Your task to perform on an android device: open app "Lyft - Rideshare, Bikes, Scooters & Transit" (install if not already installed) Image 0: 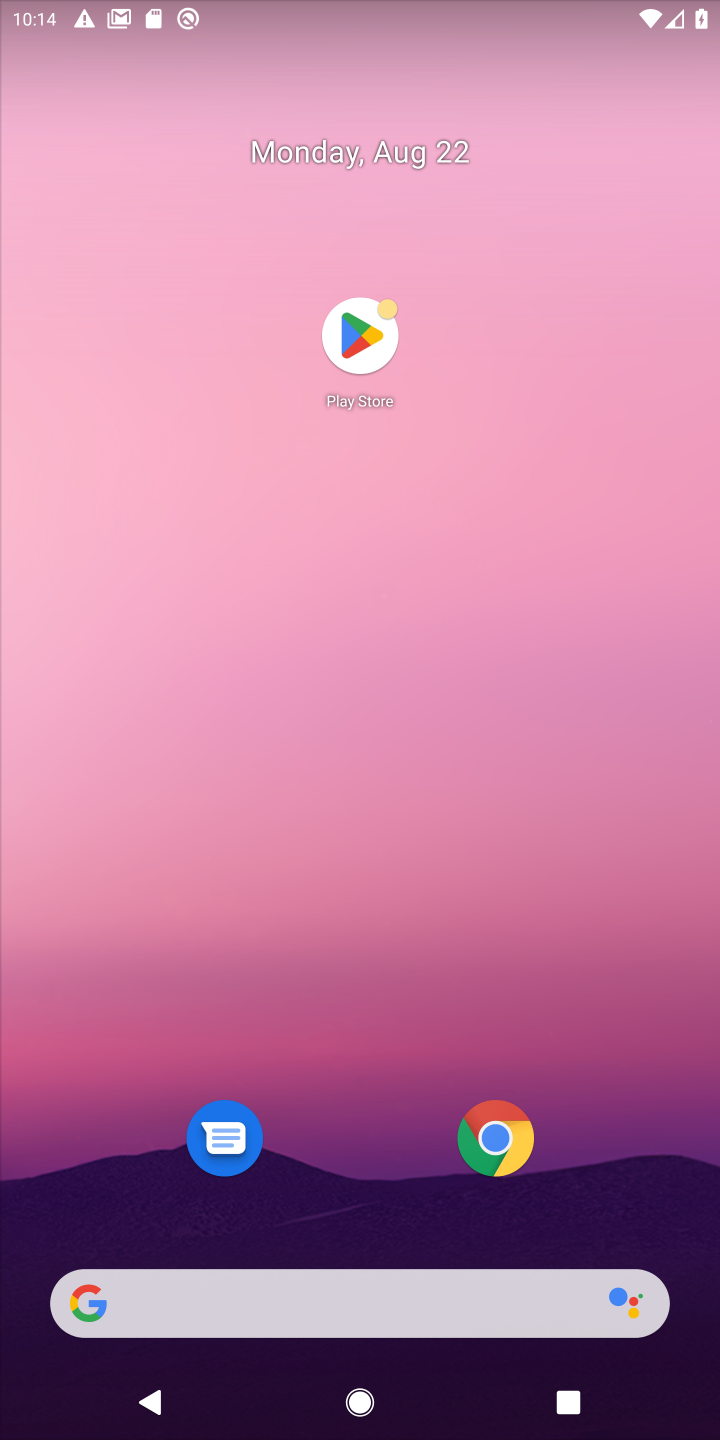
Step 0: click (360, 333)
Your task to perform on an android device: open app "Lyft - Rideshare, Bikes, Scooters & Transit" (install if not already installed) Image 1: 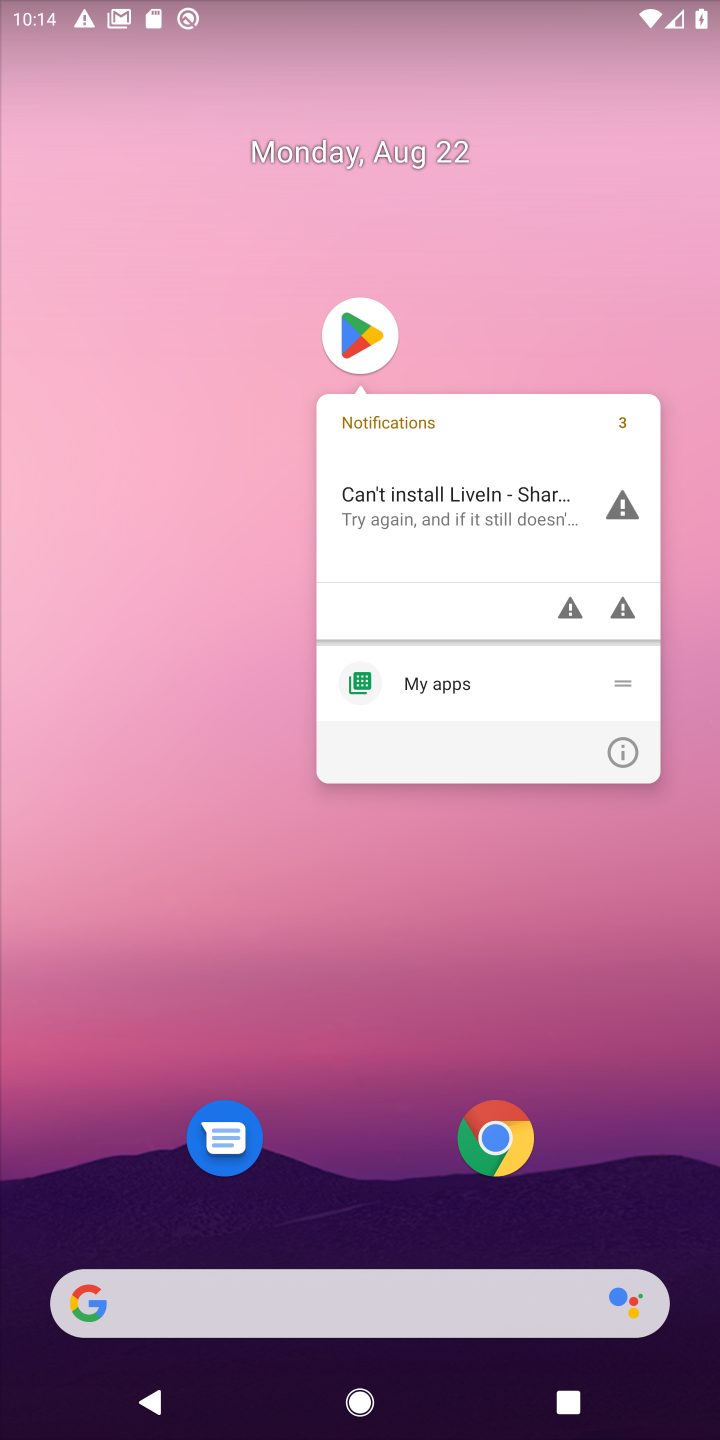
Step 1: click (357, 332)
Your task to perform on an android device: open app "Lyft - Rideshare, Bikes, Scooters & Transit" (install if not already installed) Image 2: 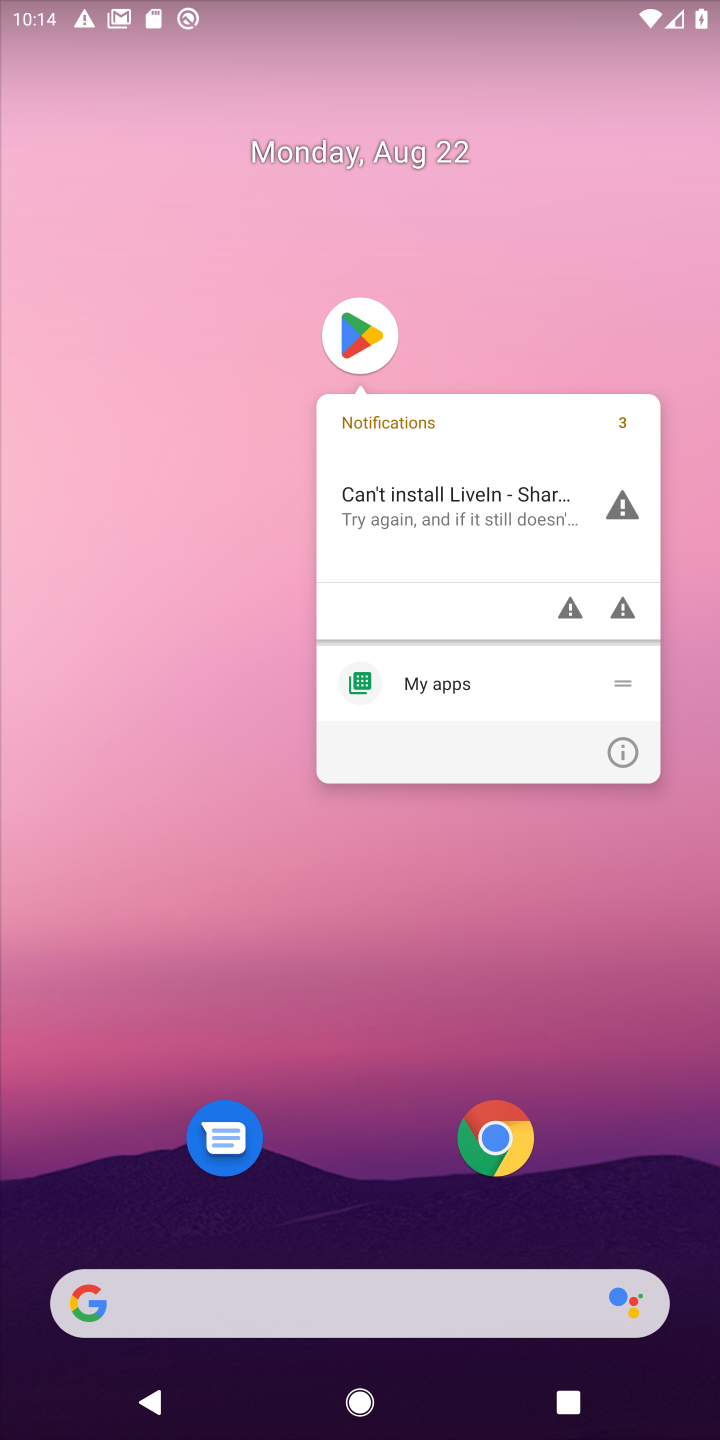
Step 2: click (352, 336)
Your task to perform on an android device: open app "Lyft - Rideshare, Bikes, Scooters & Transit" (install if not already installed) Image 3: 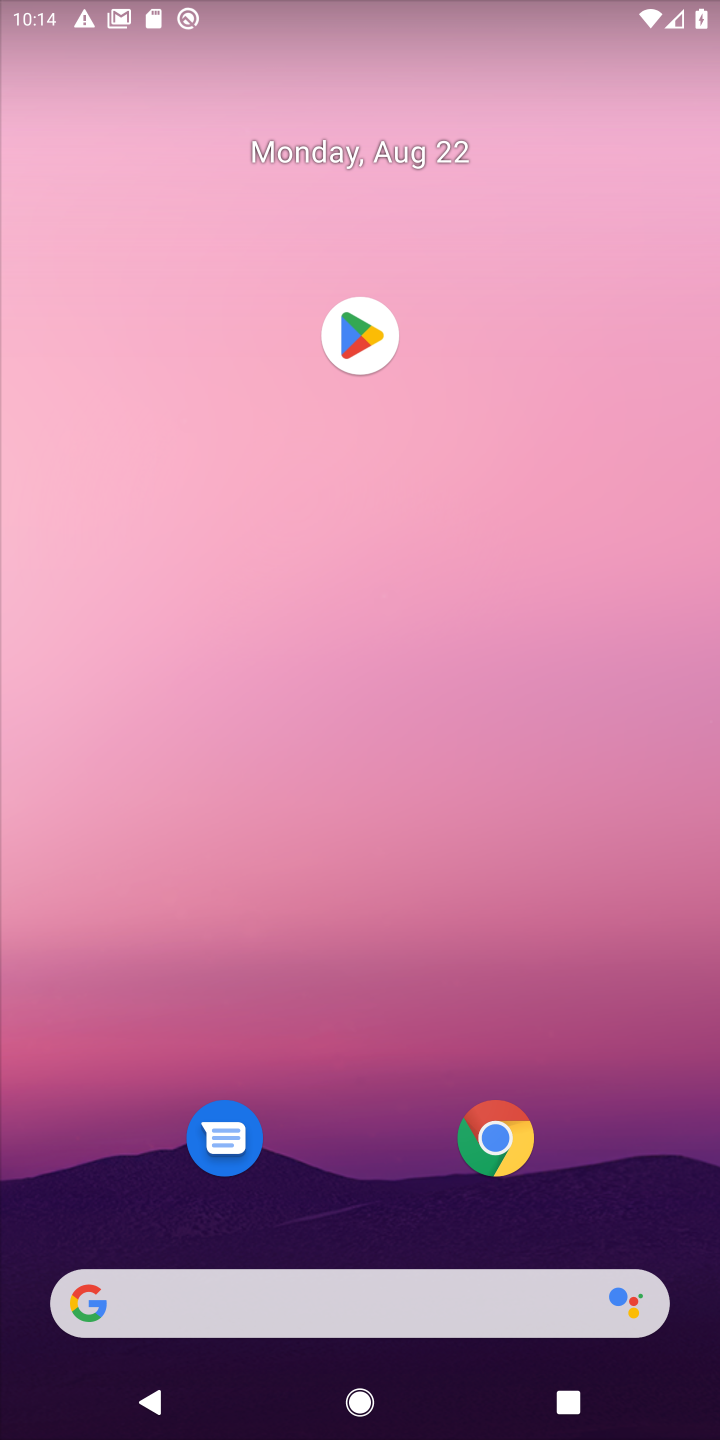
Step 3: click (357, 343)
Your task to perform on an android device: open app "Lyft - Rideshare, Bikes, Scooters & Transit" (install if not already installed) Image 4: 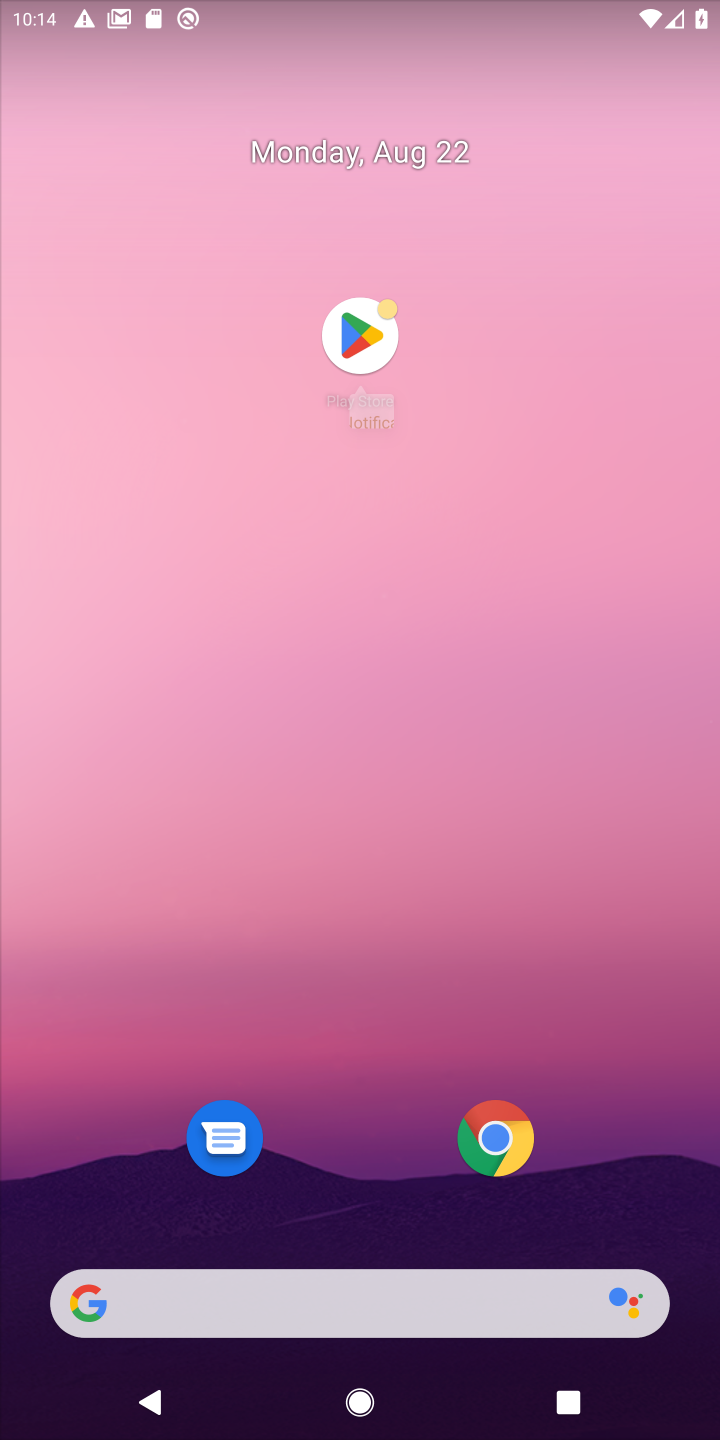
Step 4: click (357, 343)
Your task to perform on an android device: open app "Lyft - Rideshare, Bikes, Scooters & Transit" (install if not already installed) Image 5: 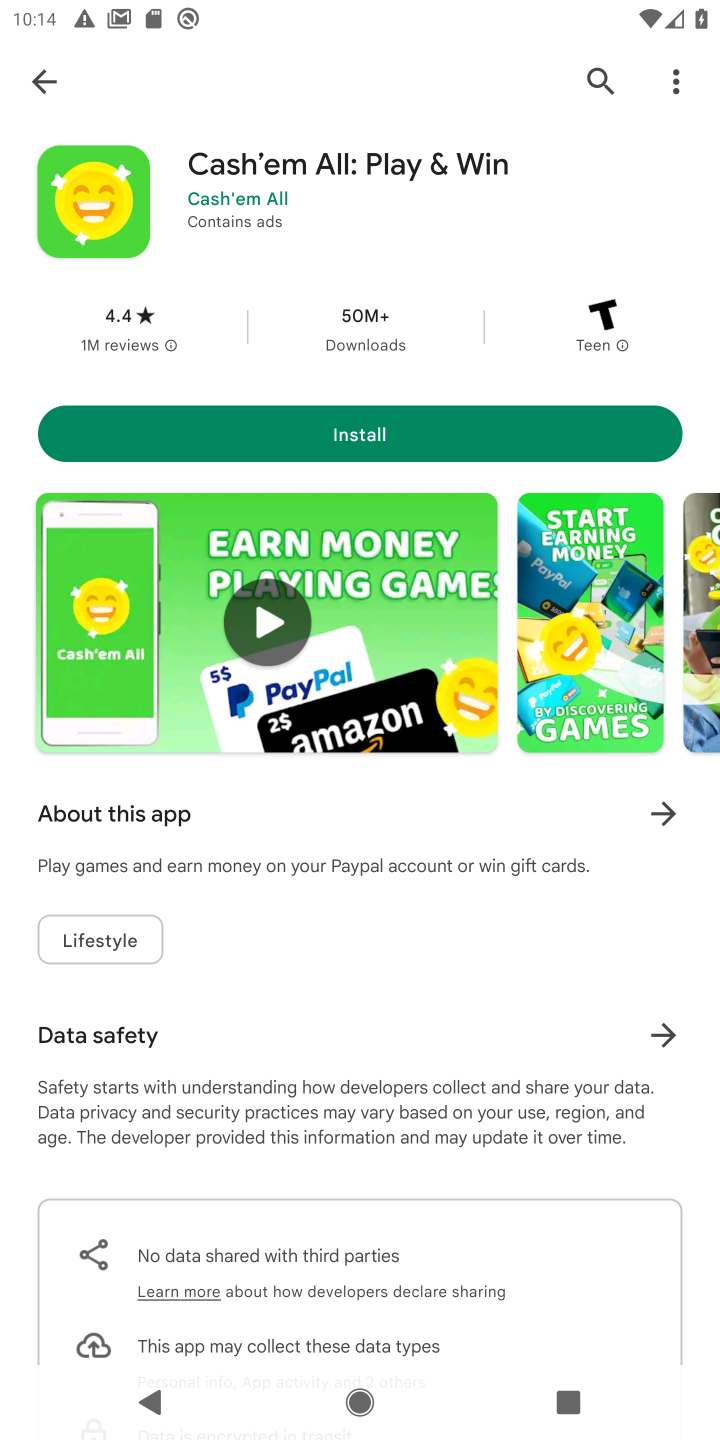
Step 5: click (36, 74)
Your task to perform on an android device: open app "Lyft - Rideshare, Bikes, Scooters & Transit" (install if not already installed) Image 6: 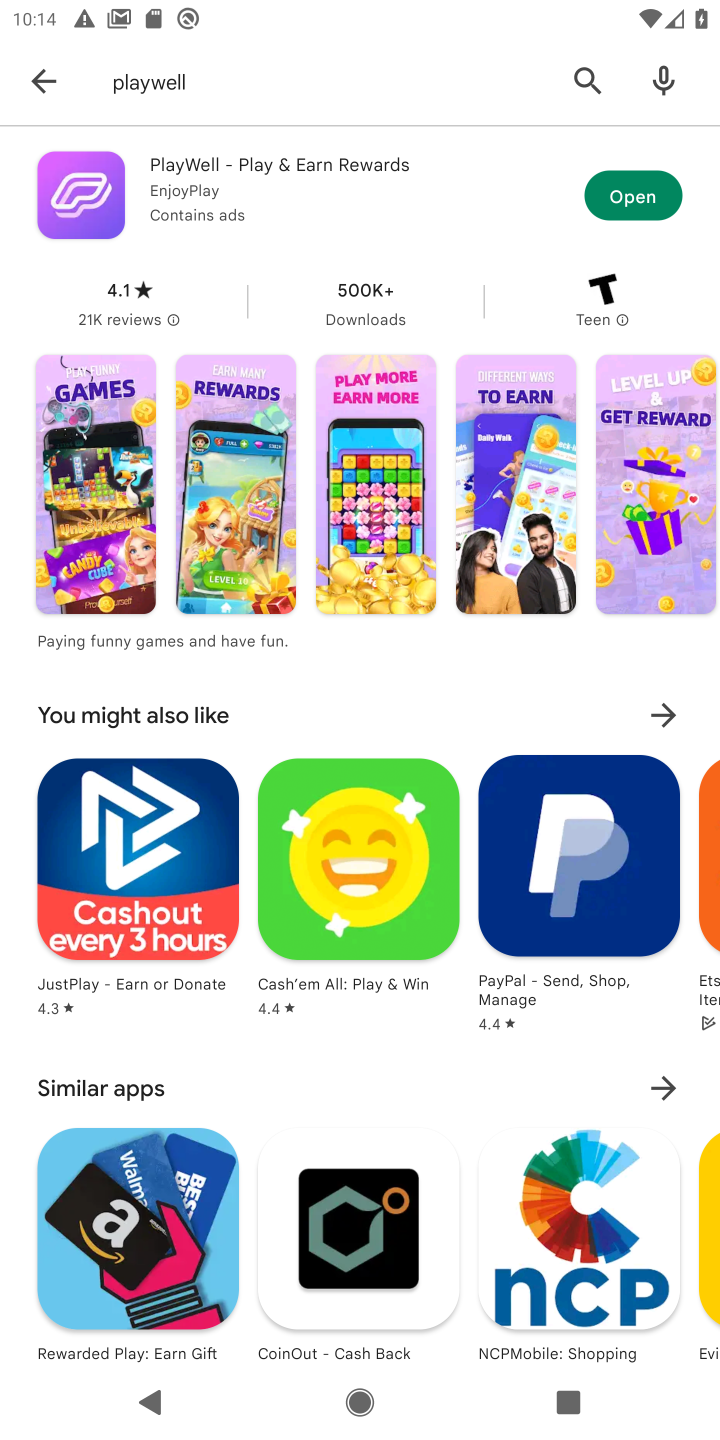
Step 6: click (579, 77)
Your task to perform on an android device: open app "Lyft - Rideshare, Bikes, Scooters & Transit" (install if not already installed) Image 7: 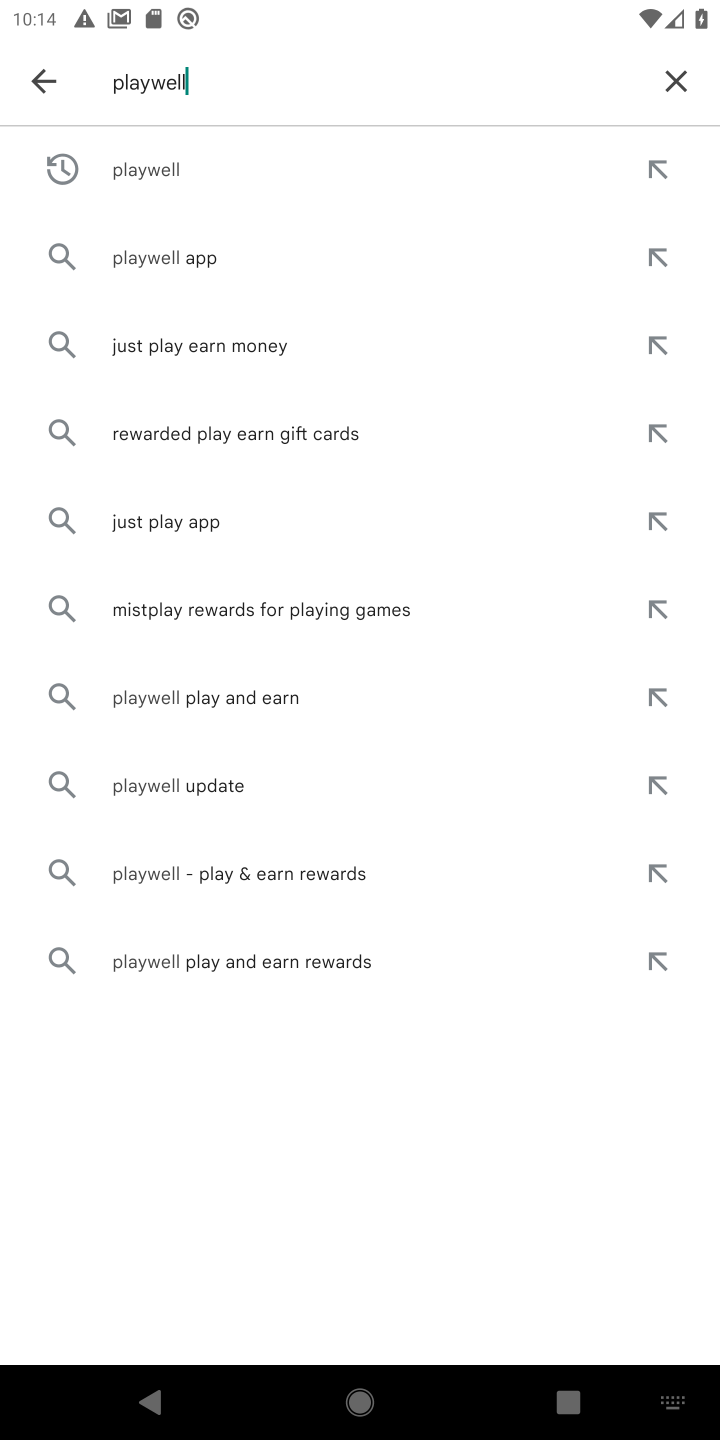
Step 7: click (669, 62)
Your task to perform on an android device: open app "Lyft - Rideshare, Bikes, Scooters & Transit" (install if not already installed) Image 8: 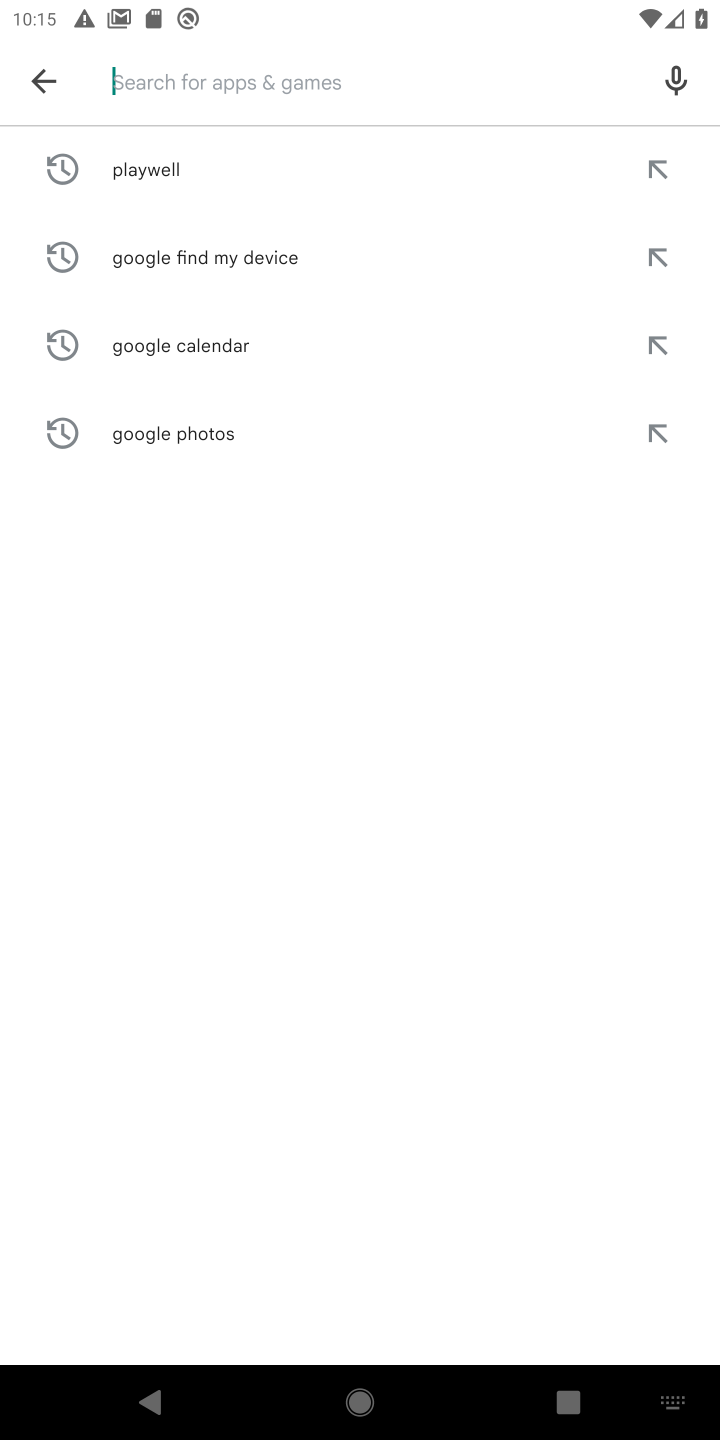
Step 8: click (235, 81)
Your task to perform on an android device: open app "Lyft - Rideshare, Bikes, Scooters & Transit" (install if not already installed) Image 9: 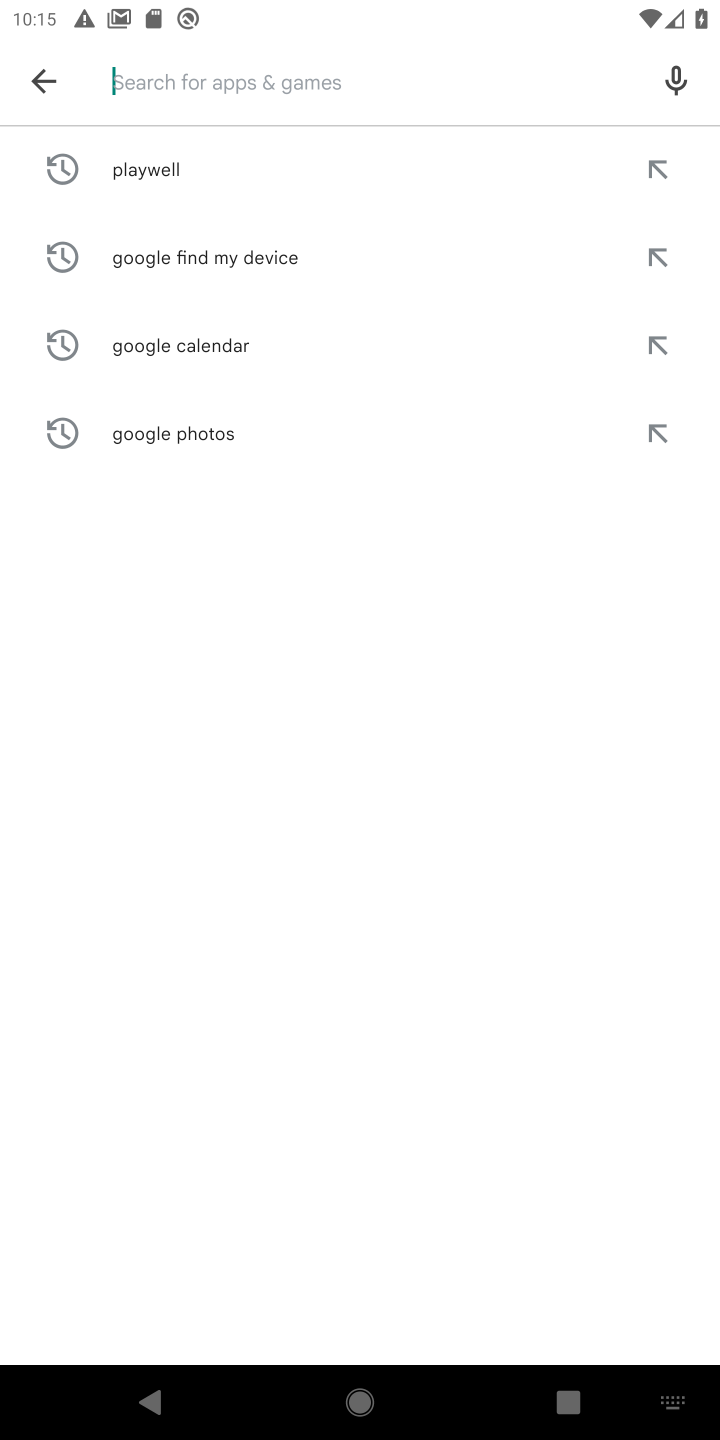
Step 9: type "lyft rideshare"
Your task to perform on an android device: open app "Lyft - Rideshare, Bikes, Scooters & Transit" (install if not already installed) Image 10: 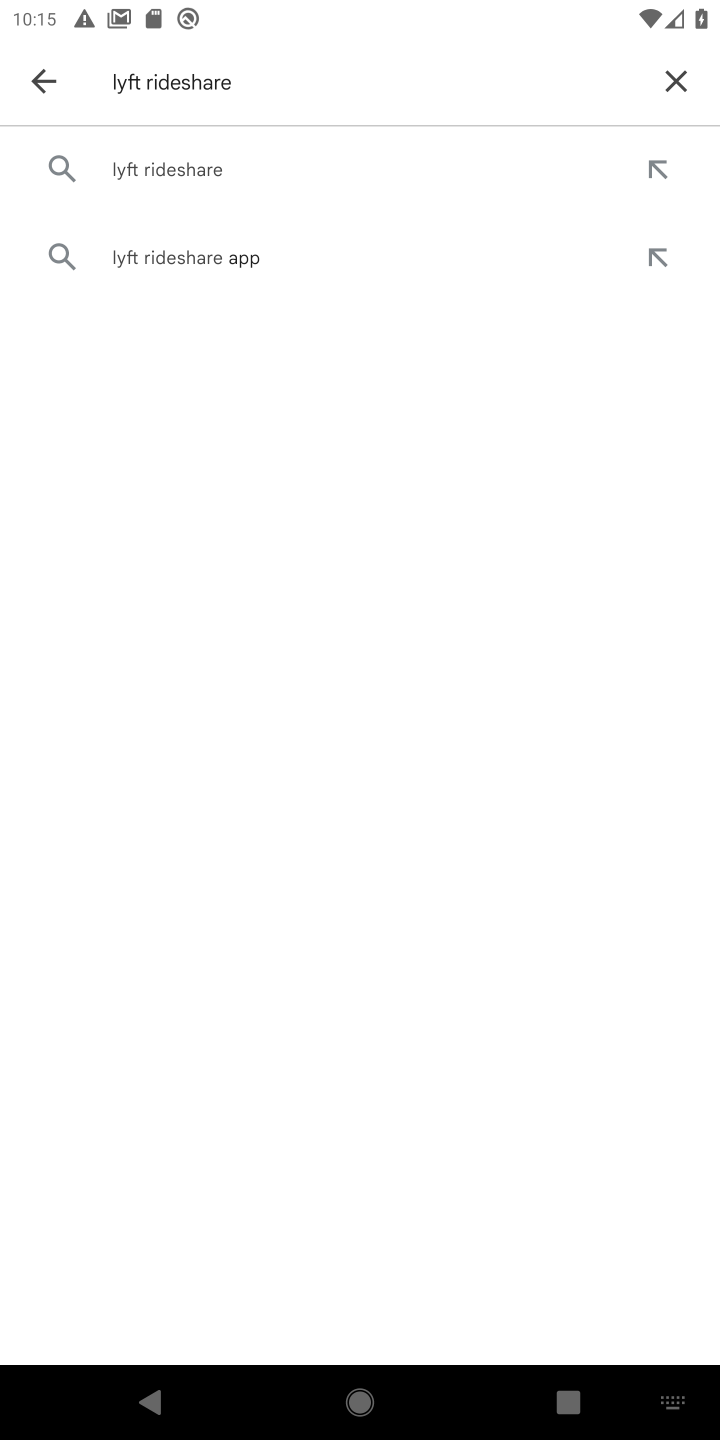
Step 10: click (168, 166)
Your task to perform on an android device: open app "Lyft - Rideshare, Bikes, Scooters & Transit" (install if not already installed) Image 11: 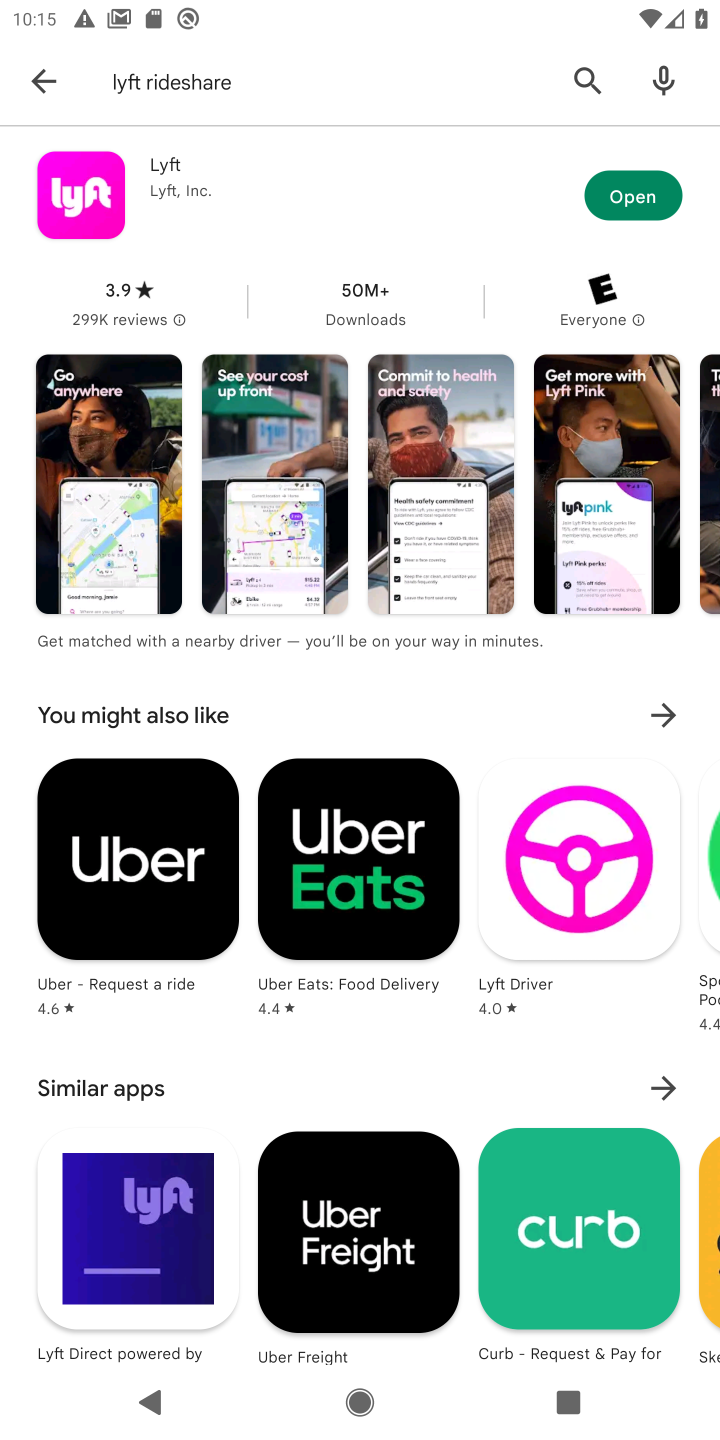
Step 11: click (648, 196)
Your task to perform on an android device: open app "Lyft - Rideshare, Bikes, Scooters & Transit" (install if not already installed) Image 12: 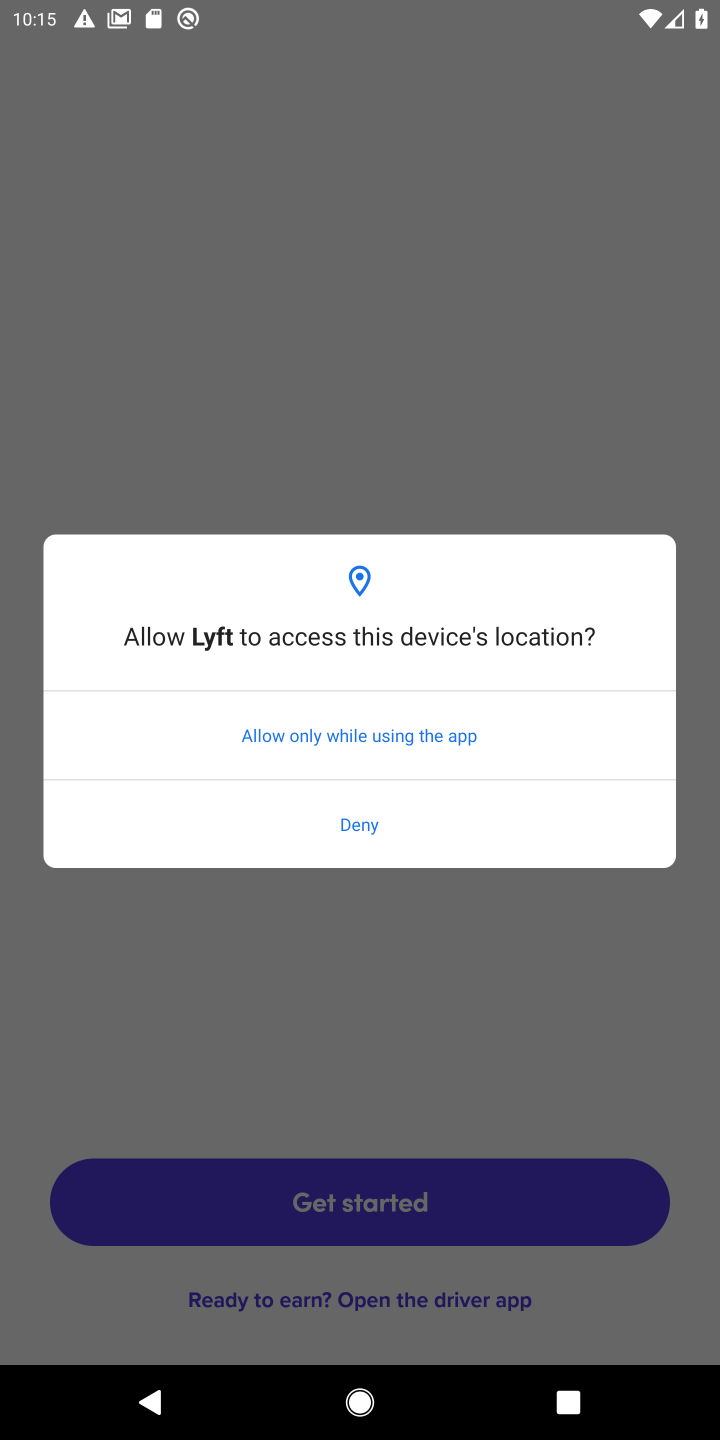
Step 12: click (361, 816)
Your task to perform on an android device: open app "Lyft - Rideshare, Bikes, Scooters & Transit" (install if not already installed) Image 13: 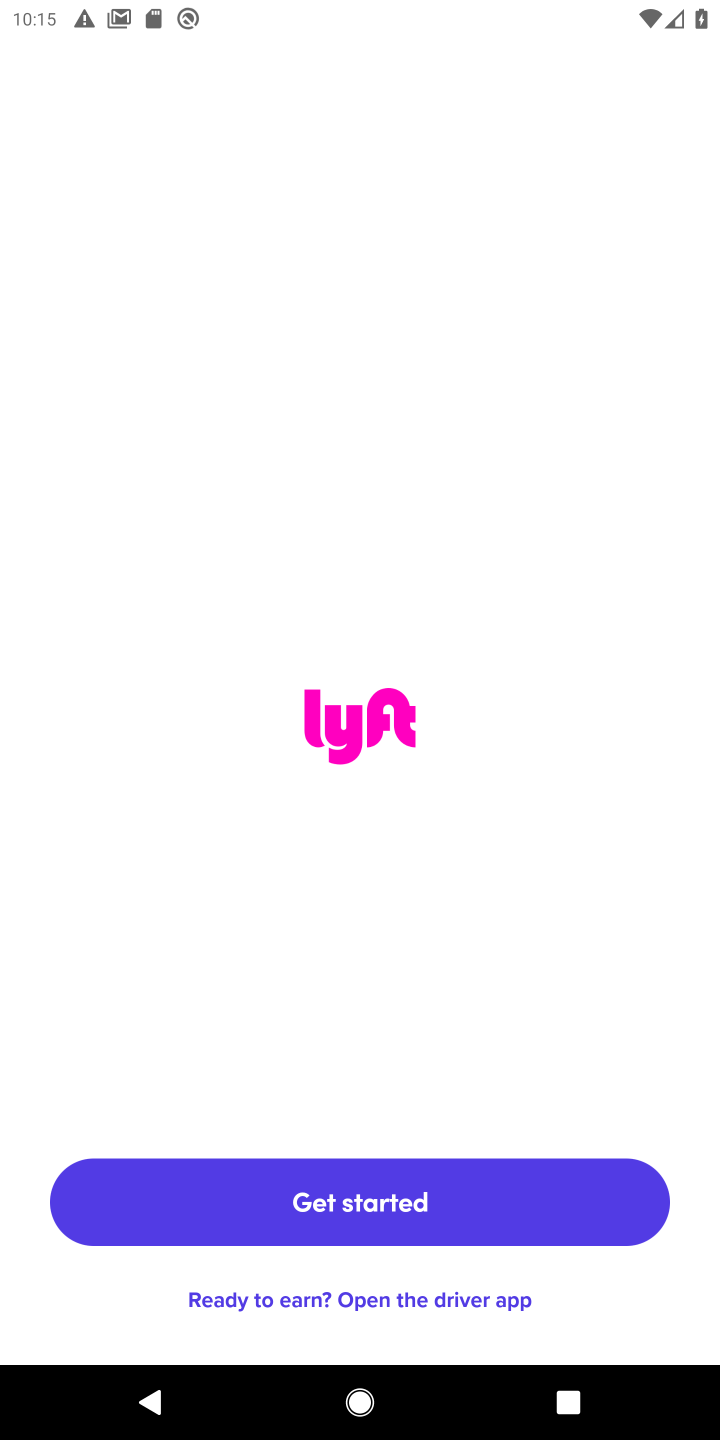
Step 13: task complete